Your task to perform on an android device: toggle notifications settings in the gmail app Image 0: 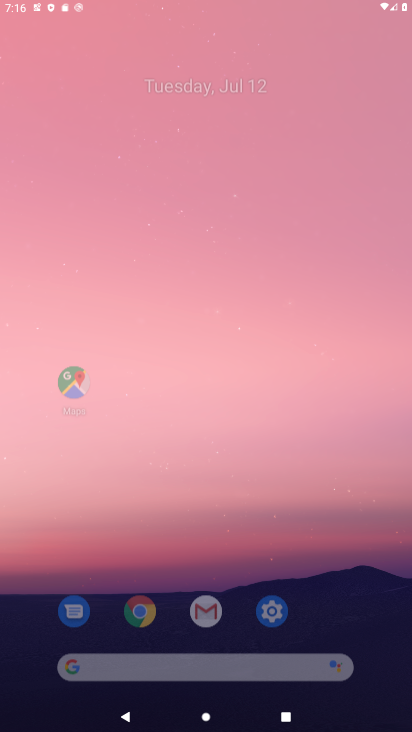
Step 0: click (143, 624)
Your task to perform on an android device: toggle notifications settings in the gmail app Image 1: 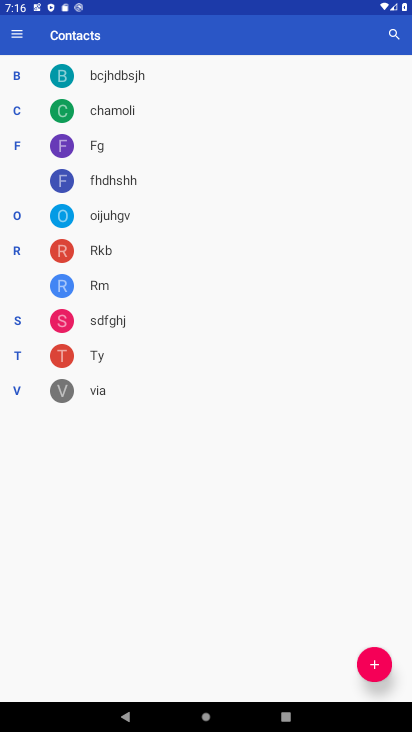
Step 1: press home button
Your task to perform on an android device: toggle notifications settings in the gmail app Image 2: 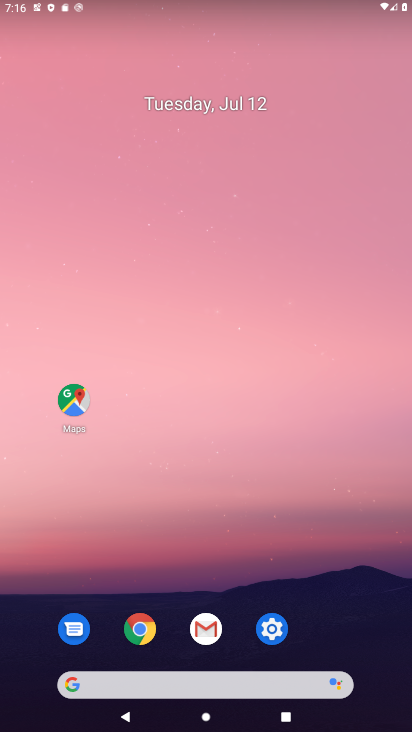
Step 2: click (137, 635)
Your task to perform on an android device: toggle notifications settings in the gmail app Image 3: 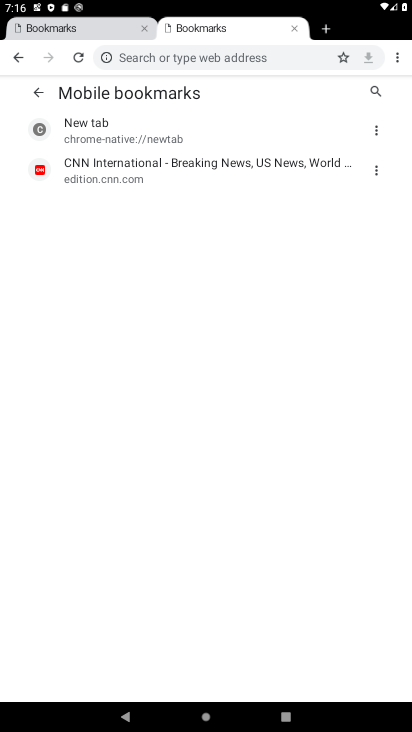
Step 3: click (389, 66)
Your task to perform on an android device: toggle notifications settings in the gmail app Image 4: 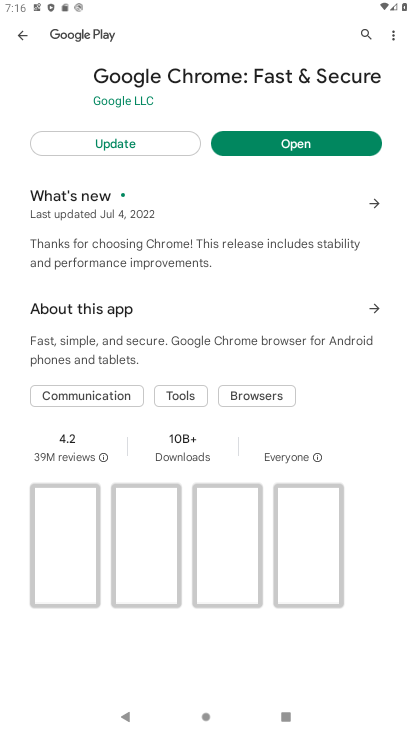
Step 4: press back button
Your task to perform on an android device: toggle notifications settings in the gmail app Image 5: 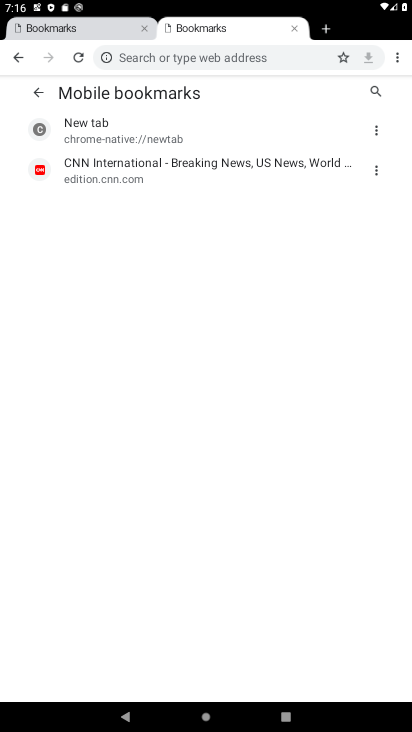
Step 5: click (397, 68)
Your task to perform on an android device: toggle notifications settings in the gmail app Image 6: 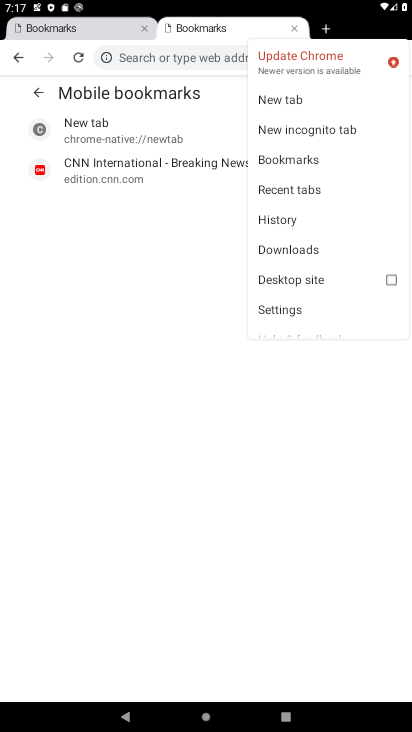
Step 6: press home button
Your task to perform on an android device: toggle notifications settings in the gmail app Image 7: 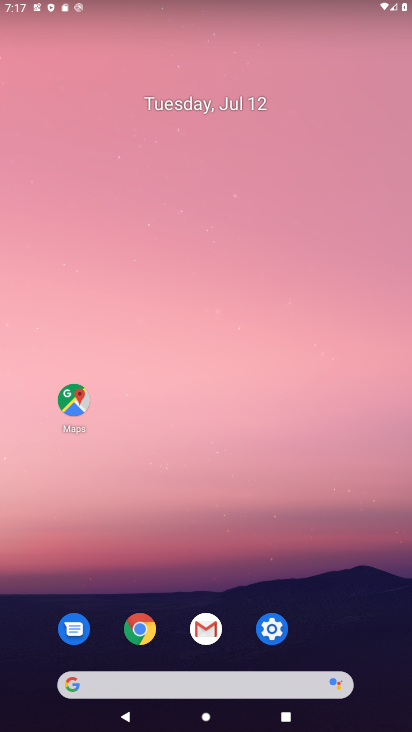
Step 7: click (210, 618)
Your task to perform on an android device: toggle notifications settings in the gmail app Image 8: 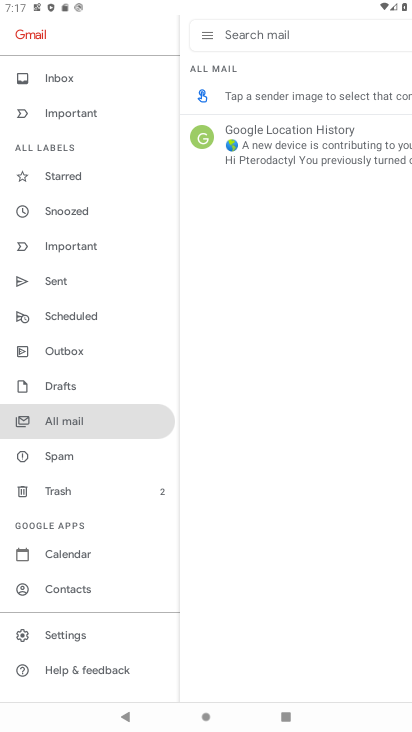
Step 8: click (55, 634)
Your task to perform on an android device: toggle notifications settings in the gmail app Image 9: 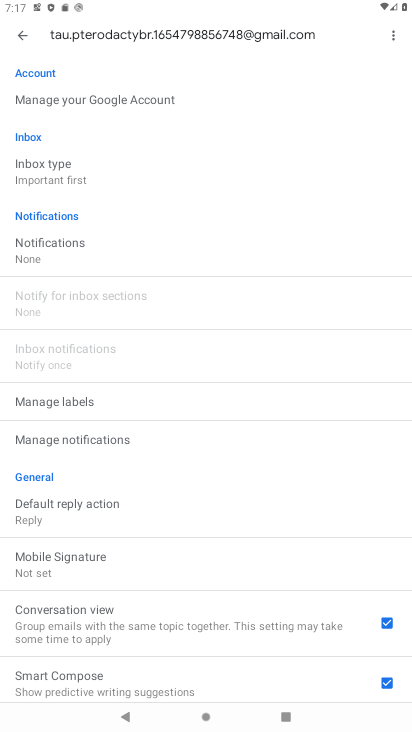
Step 9: click (58, 250)
Your task to perform on an android device: toggle notifications settings in the gmail app Image 10: 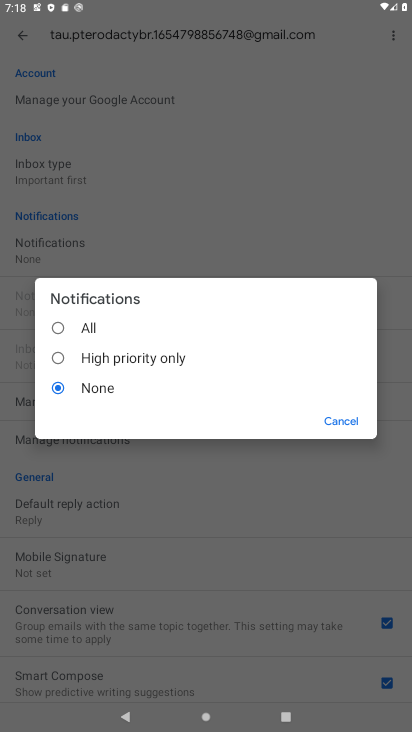
Step 10: task complete